Your task to perform on an android device: open a bookmark in the chrome app Image 0: 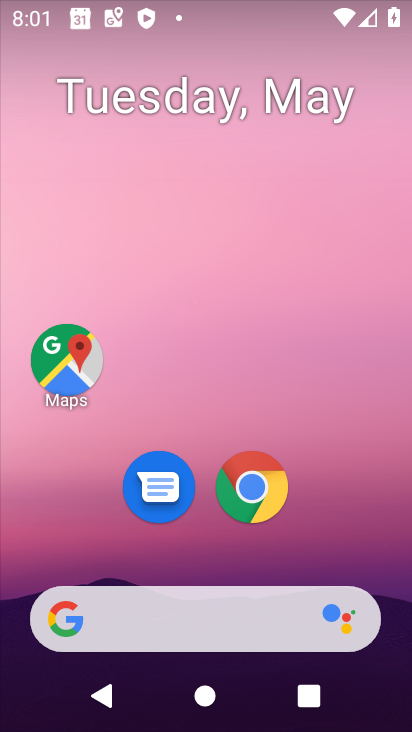
Step 0: drag from (365, 533) to (364, 268)
Your task to perform on an android device: open a bookmark in the chrome app Image 1: 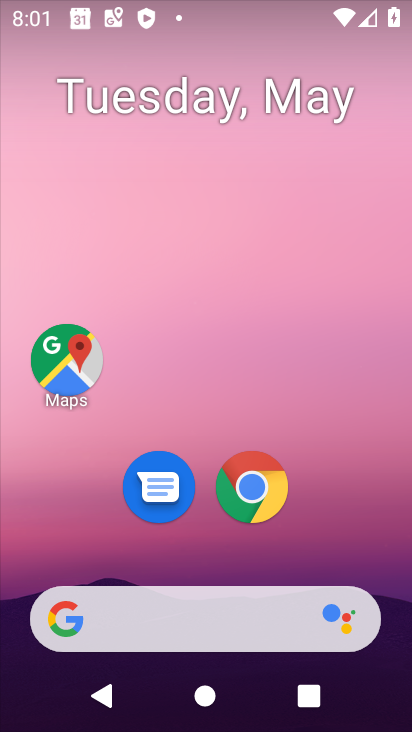
Step 1: drag from (332, 553) to (346, 143)
Your task to perform on an android device: open a bookmark in the chrome app Image 2: 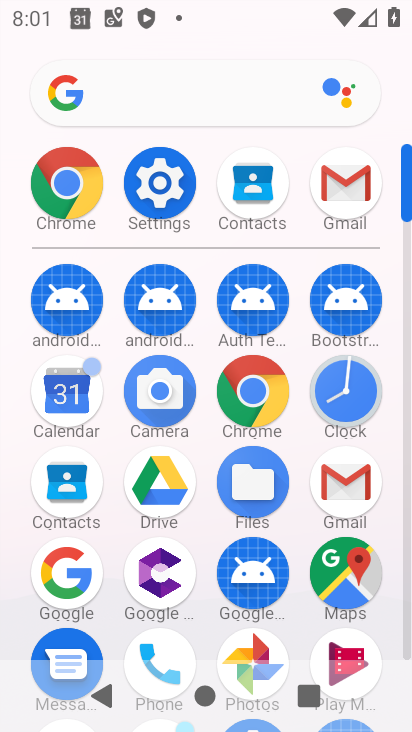
Step 2: click (276, 387)
Your task to perform on an android device: open a bookmark in the chrome app Image 3: 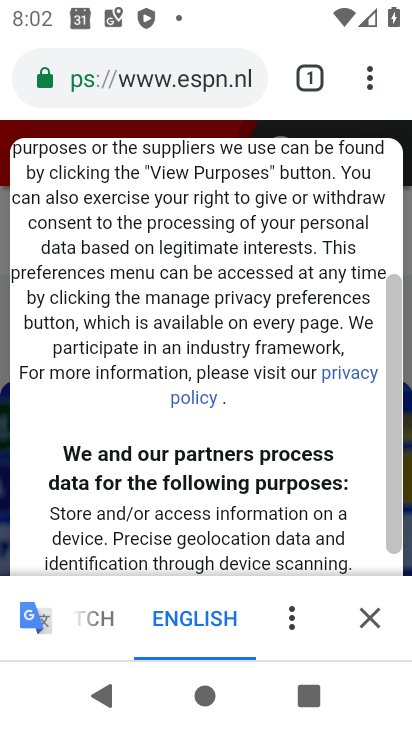
Step 3: click (368, 85)
Your task to perform on an android device: open a bookmark in the chrome app Image 4: 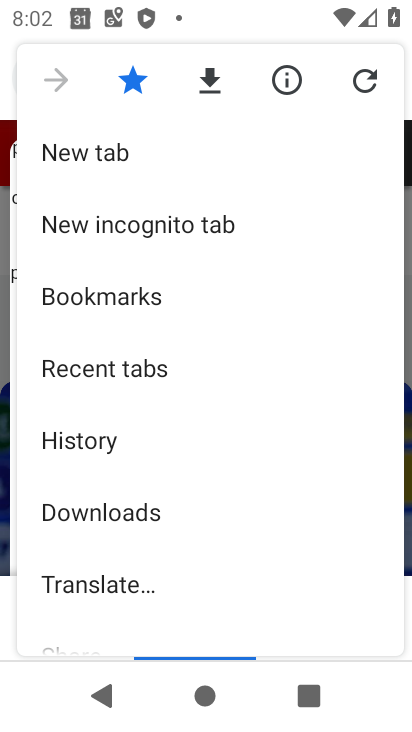
Step 4: click (163, 301)
Your task to perform on an android device: open a bookmark in the chrome app Image 5: 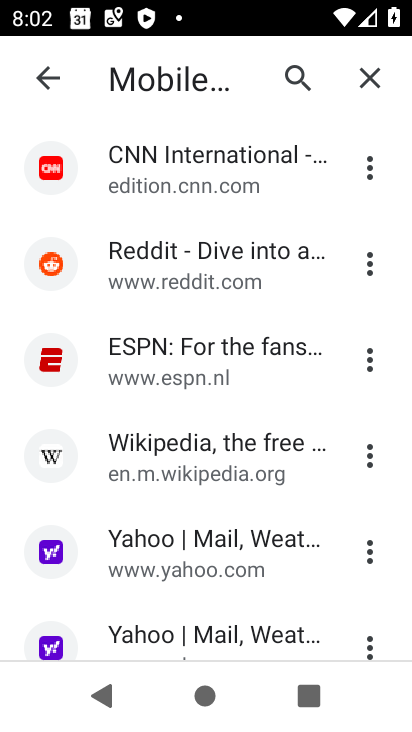
Step 5: click (216, 183)
Your task to perform on an android device: open a bookmark in the chrome app Image 6: 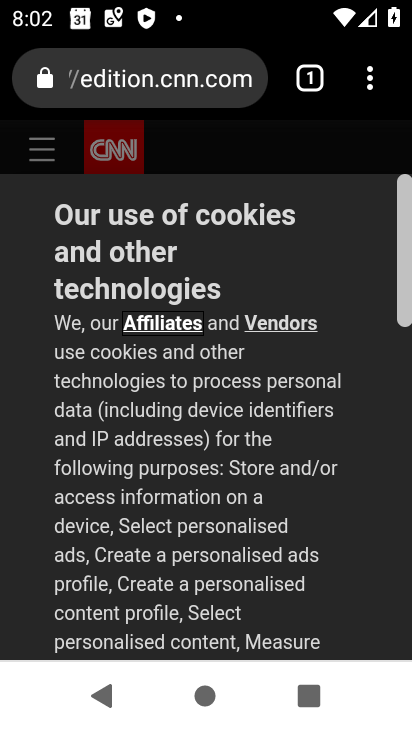
Step 6: task complete